Your task to perform on an android device: Go to display settings Image 0: 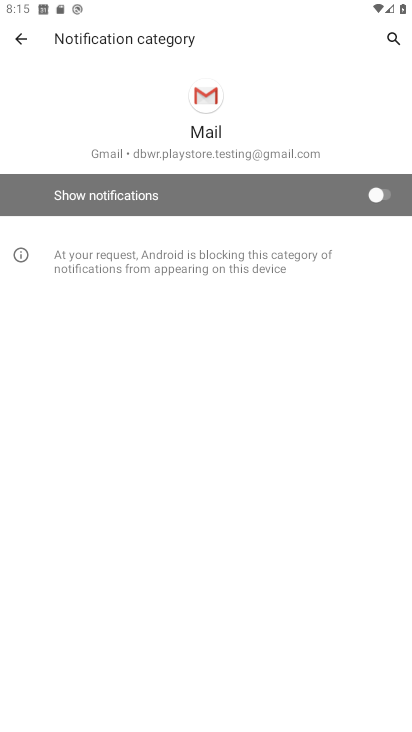
Step 0: press home button
Your task to perform on an android device: Go to display settings Image 1: 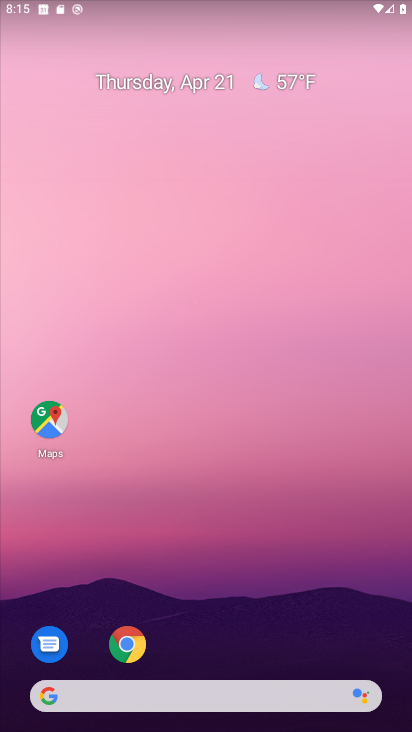
Step 1: drag from (211, 501) to (183, 44)
Your task to perform on an android device: Go to display settings Image 2: 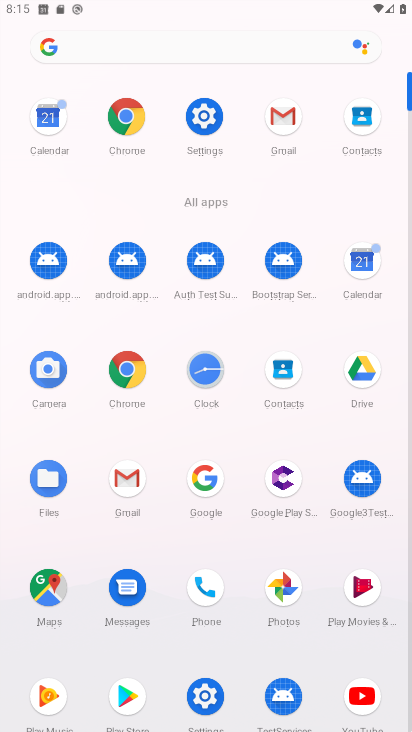
Step 2: click (205, 108)
Your task to perform on an android device: Go to display settings Image 3: 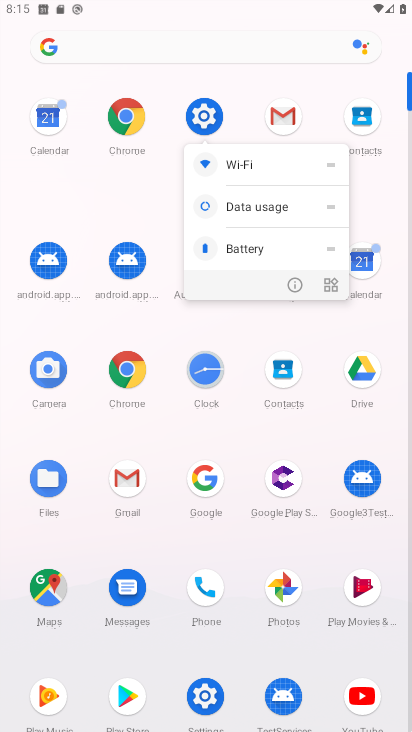
Step 3: click (207, 111)
Your task to perform on an android device: Go to display settings Image 4: 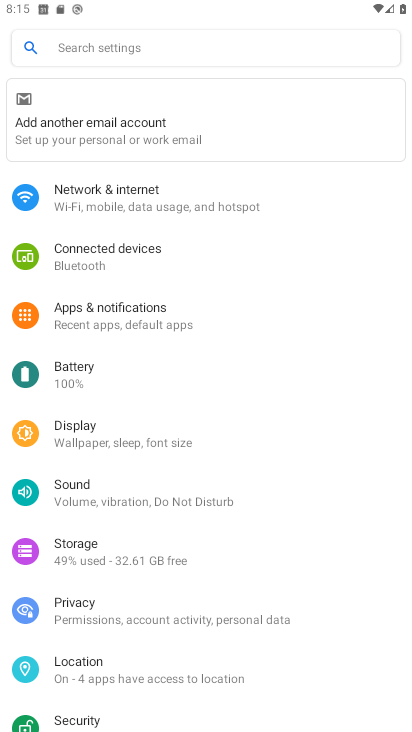
Step 4: click (174, 431)
Your task to perform on an android device: Go to display settings Image 5: 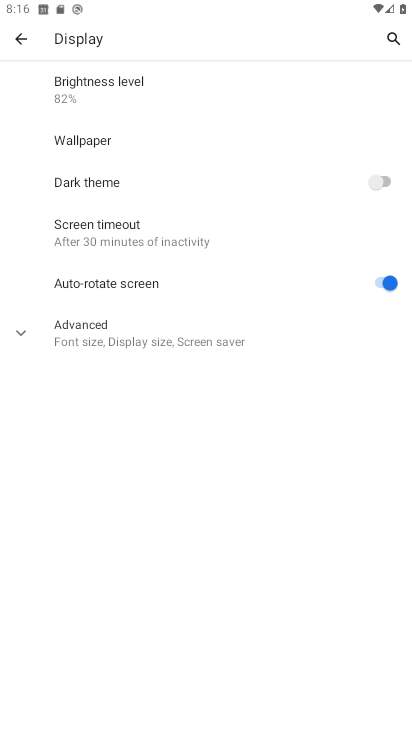
Step 5: task complete